Your task to perform on an android device: Is it going to rain tomorrow? Image 0: 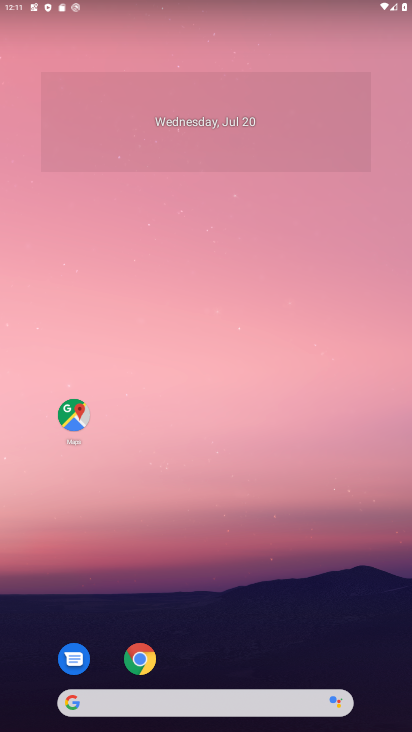
Step 0: click (269, 703)
Your task to perform on an android device: Is it going to rain tomorrow? Image 1: 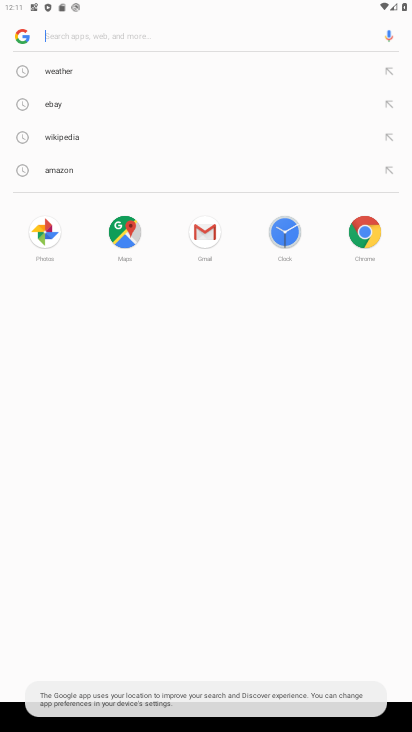
Step 1: type "Is it going to rain tomorrow?"
Your task to perform on an android device: Is it going to rain tomorrow? Image 2: 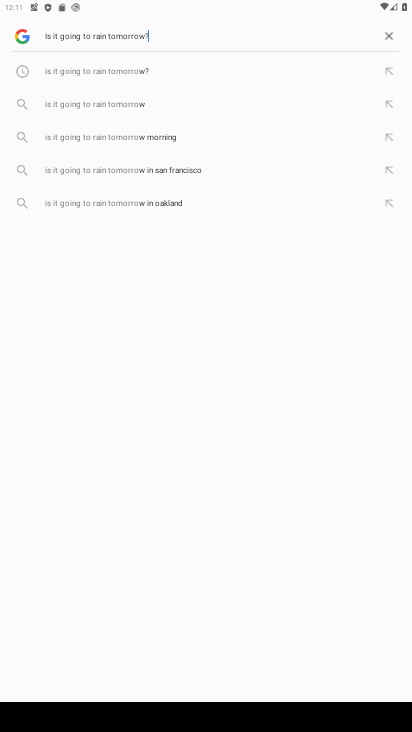
Step 2: press enter
Your task to perform on an android device: Is it going to rain tomorrow? Image 3: 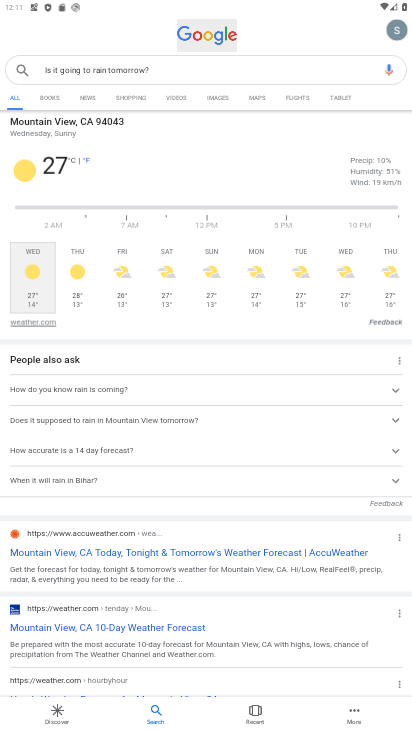
Step 3: task complete